Your task to perform on an android device: Search for sushi restaurants on Maps Image 0: 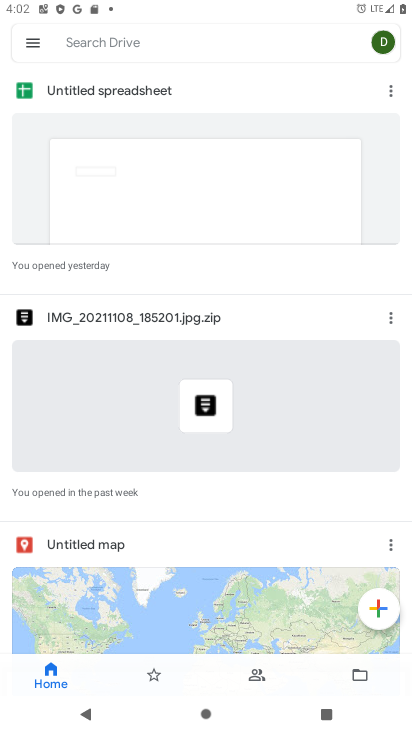
Step 0: press home button
Your task to perform on an android device: Search for sushi restaurants on Maps Image 1: 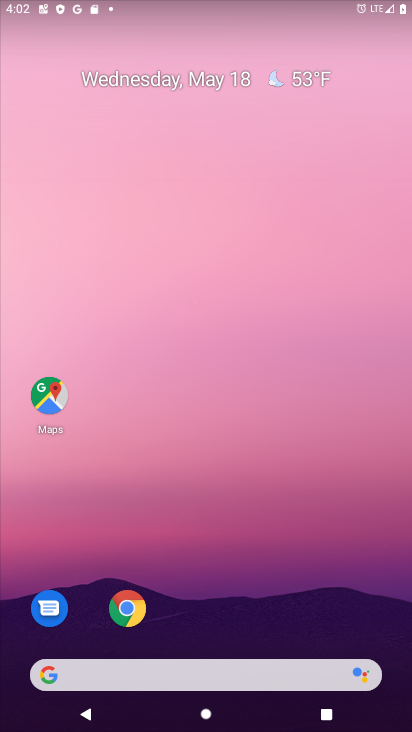
Step 1: click (47, 396)
Your task to perform on an android device: Search for sushi restaurants on Maps Image 2: 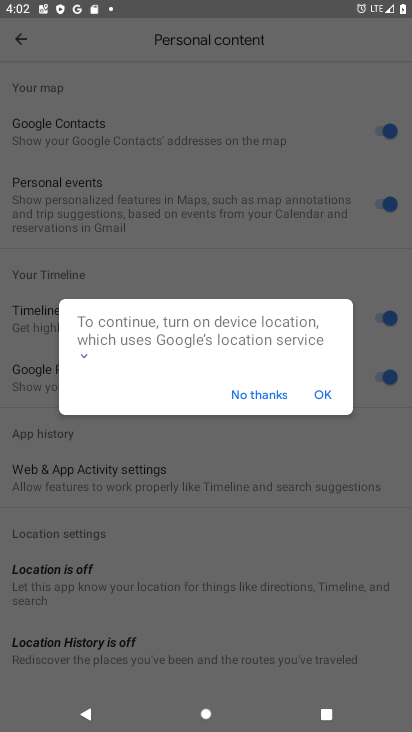
Step 2: click (243, 394)
Your task to perform on an android device: Search for sushi restaurants on Maps Image 3: 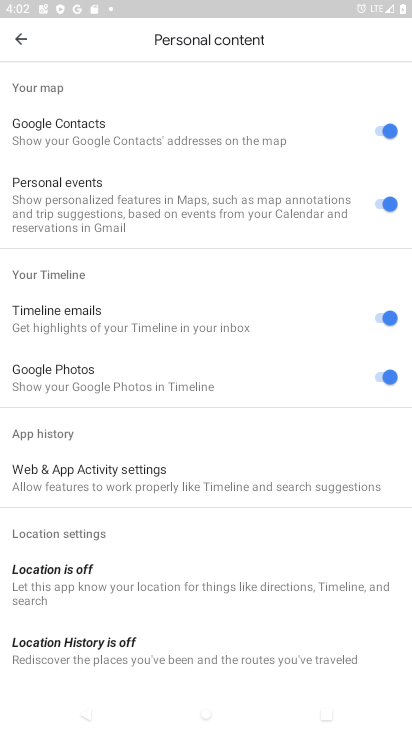
Step 3: click (17, 42)
Your task to perform on an android device: Search for sushi restaurants on Maps Image 4: 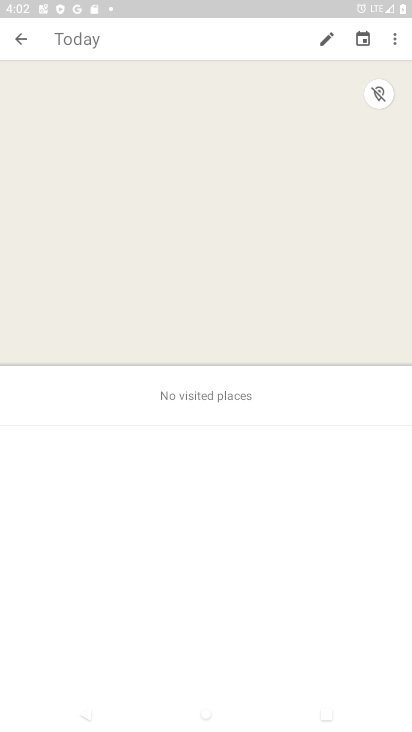
Step 4: click (17, 42)
Your task to perform on an android device: Search for sushi restaurants on Maps Image 5: 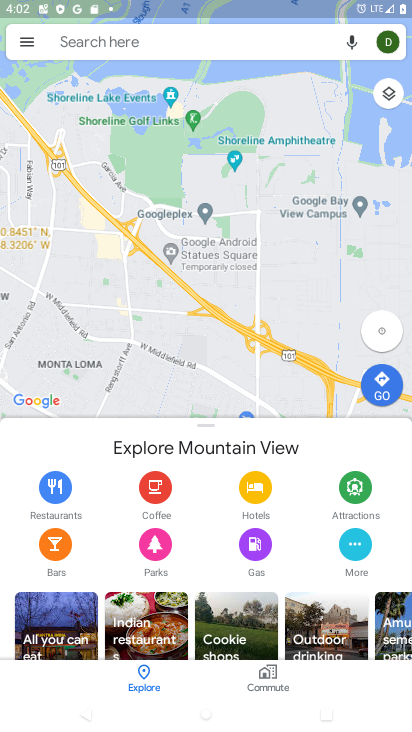
Step 5: click (68, 47)
Your task to perform on an android device: Search for sushi restaurants on Maps Image 6: 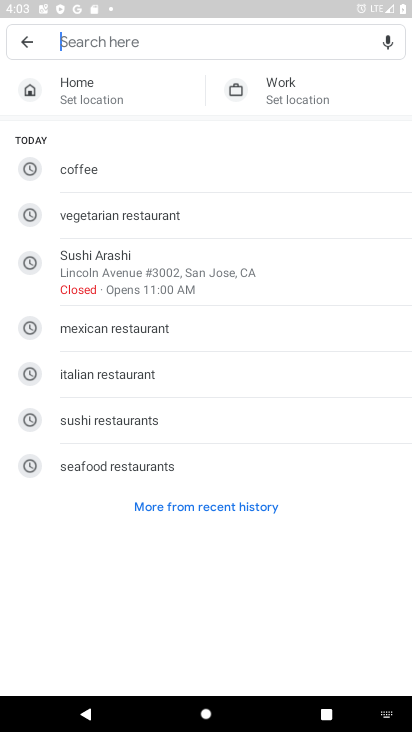
Step 6: type "sushi restaurant"
Your task to perform on an android device: Search for sushi restaurants on Maps Image 7: 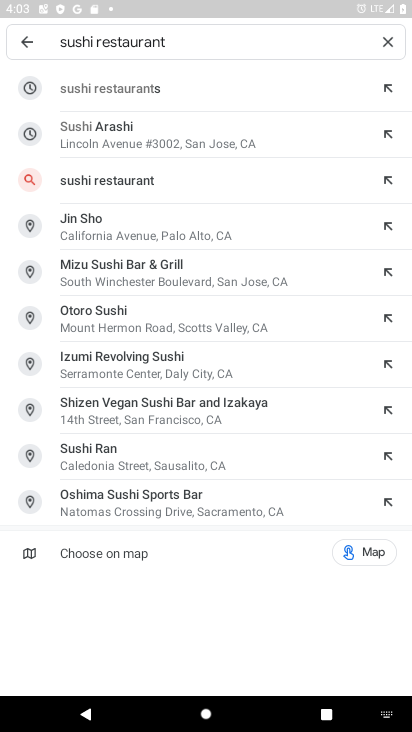
Step 7: click (108, 92)
Your task to perform on an android device: Search for sushi restaurants on Maps Image 8: 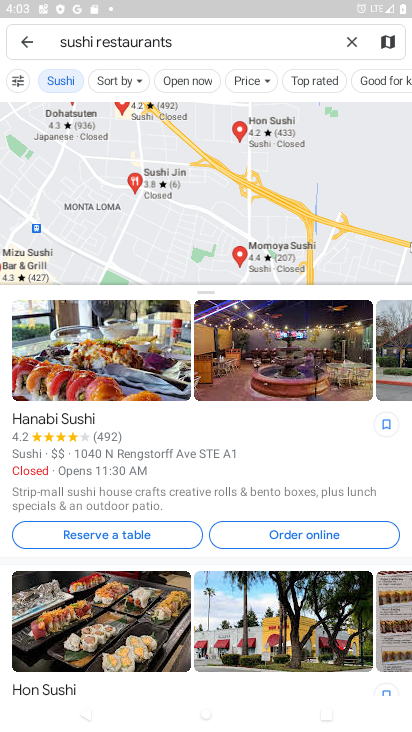
Step 8: task complete